Your task to perform on an android device: all mails in gmail Image 0: 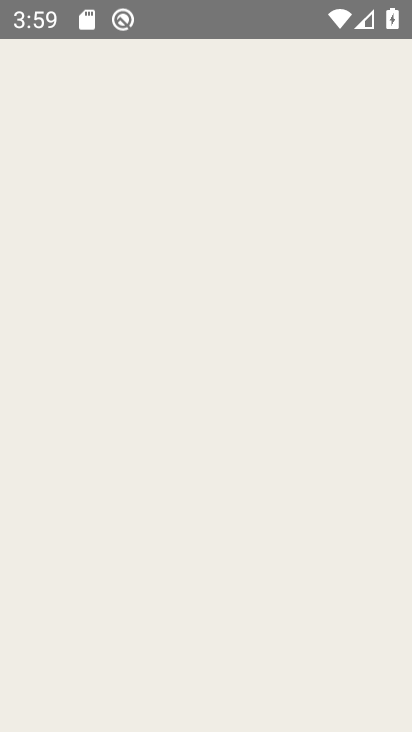
Step 0: click (335, 78)
Your task to perform on an android device: all mails in gmail Image 1: 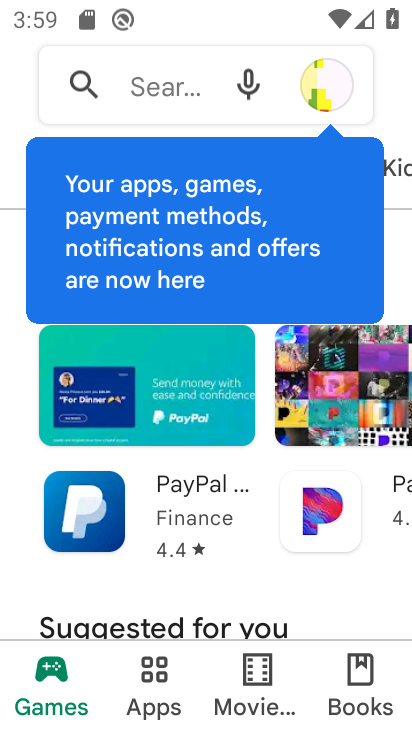
Step 1: press home button
Your task to perform on an android device: all mails in gmail Image 2: 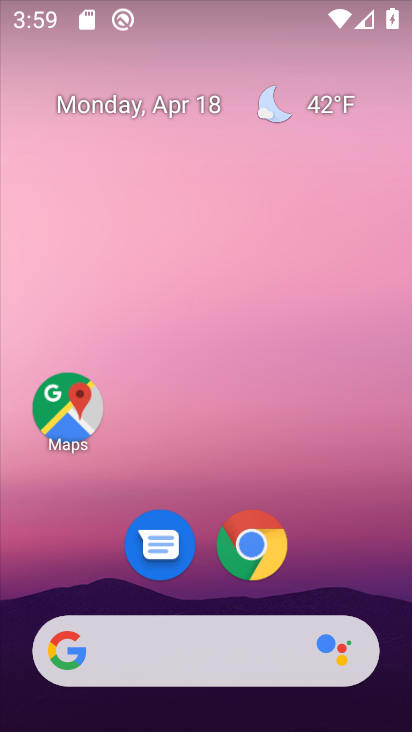
Step 2: drag from (319, 566) to (321, 77)
Your task to perform on an android device: all mails in gmail Image 3: 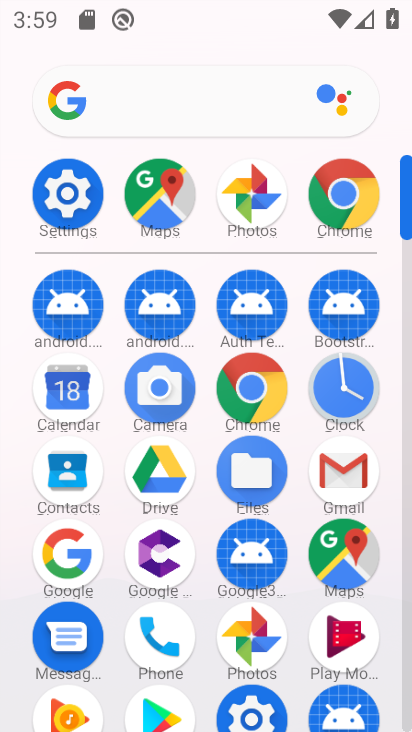
Step 3: click (352, 472)
Your task to perform on an android device: all mails in gmail Image 4: 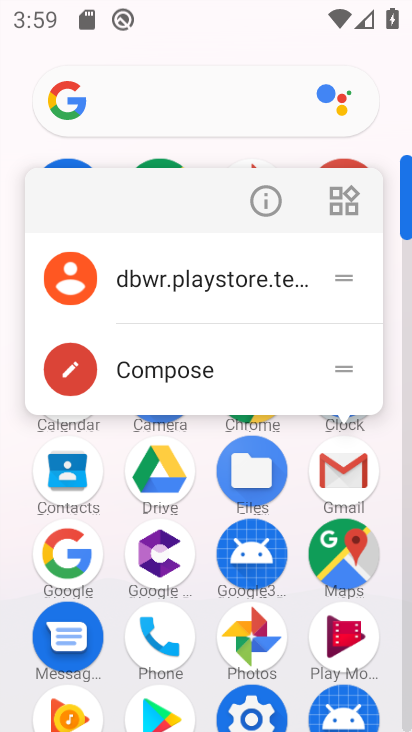
Step 4: click (352, 472)
Your task to perform on an android device: all mails in gmail Image 5: 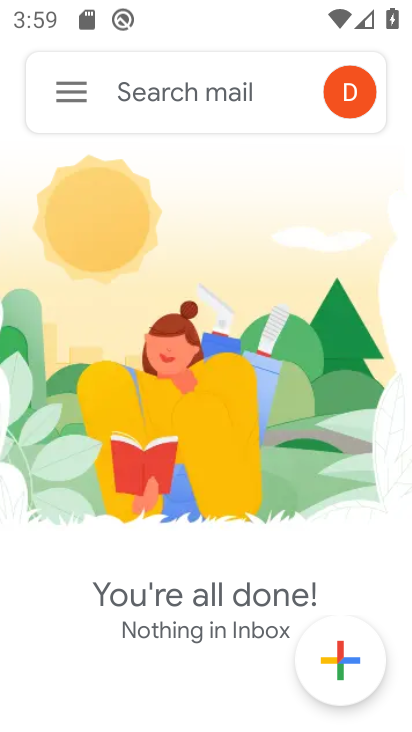
Step 5: click (77, 85)
Your task to perform on an android device: all mails in gmail Image 6: 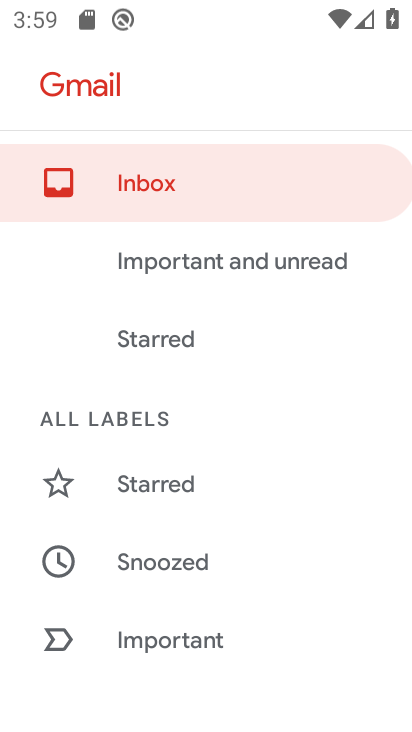
Step 6: drag from (329, 534) to (330, 360)
Your task to perform on an android device: all mails in gmail Image 7: 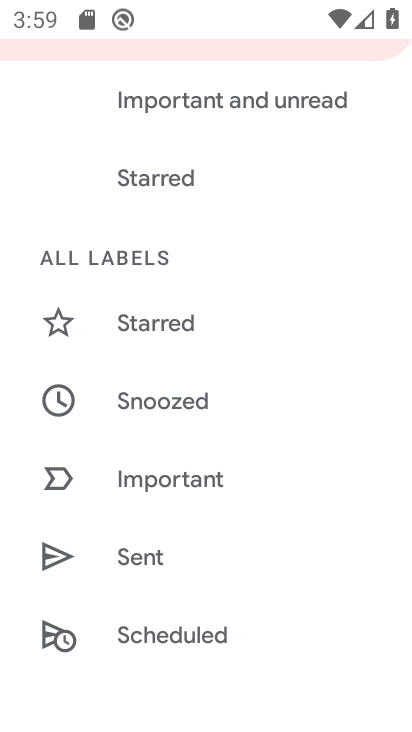
Step 7: drag from (320, 561) to (316, 343)
Your task to perform on an android device: all mails in gmail Image 8: 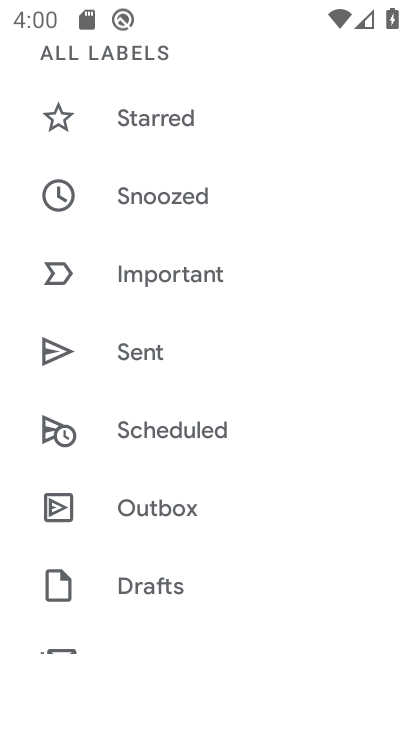
Step 8: drag from (317, 533) to (304, 320)
Your task to perform on an android device: all mails in gmail Image 9: 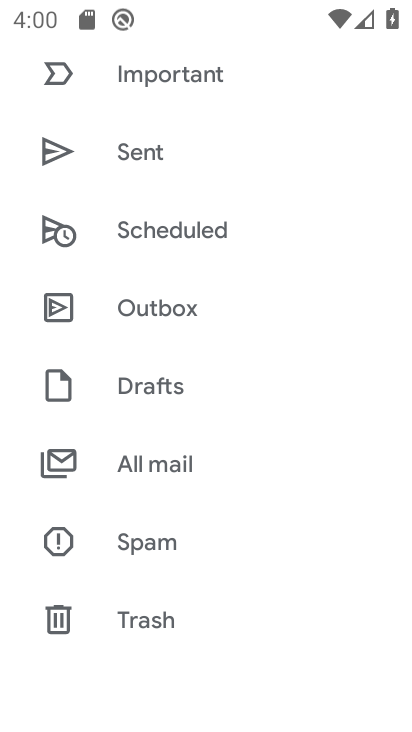
Step 9: drag from (307, 563) to (313, 400)
Your task to perform on an android device: all mails in gmail Image 10: 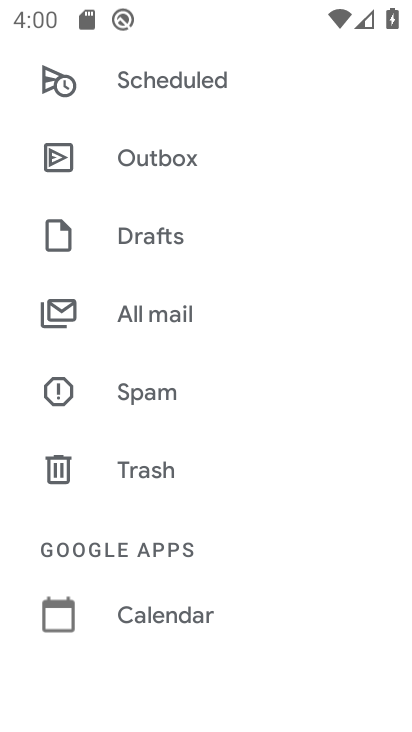
Step 10: click (179, 310)
Your task to perform on an android device: all mails in gmail Image 11: 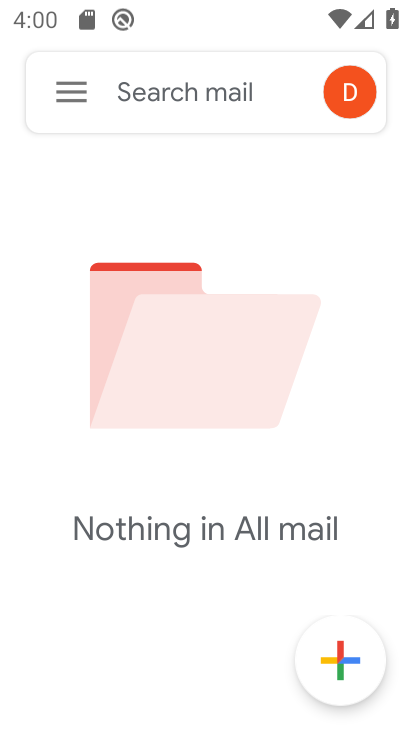
Step 11: task complete